Your task to perform on an android device: toggle notification dots Image 0: 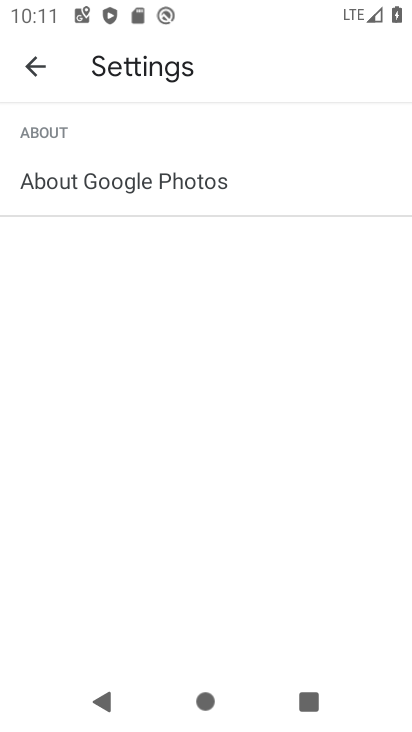
Step 0: press home button
Your task to perform on an android device: toggle notification dots Image 1: 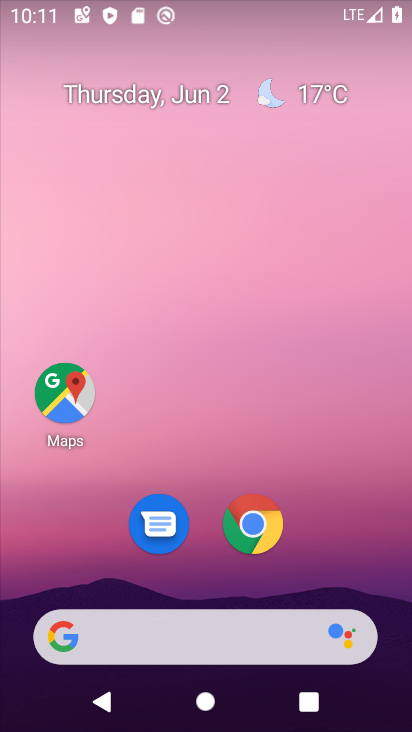
Step 1: drag from (238, 481) to (264, 0)
Your task to perform on an android device: toggle notification dots Image 2: 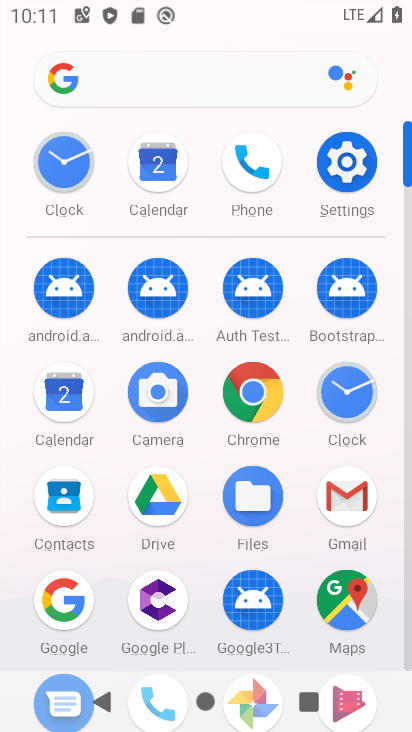
Step 2: click (346, 163)
Your task to perform on an android device: toggle notification dots Image 3: 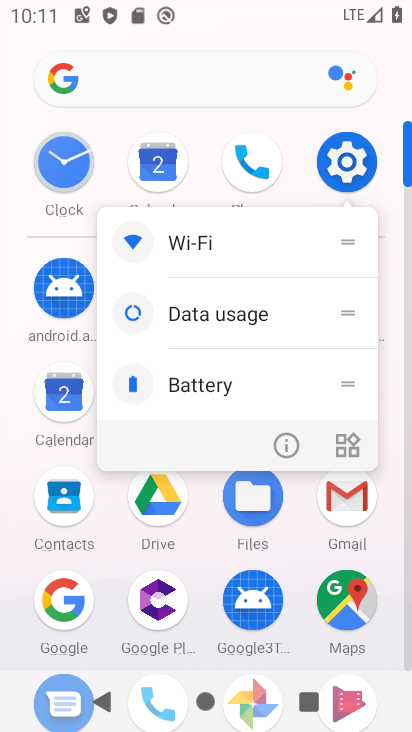
Step 3: click (350, 154)
Your task to perform on an android device: toggle notification dots Image 4: 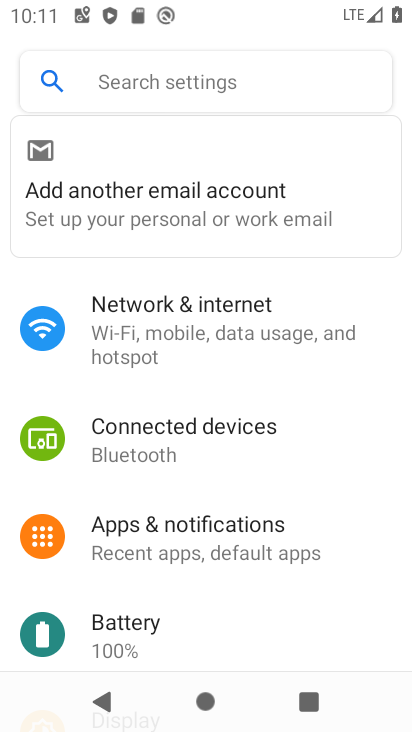
Step 4: click (262, 532)
Your task to perform on an android device: toggle notification dots Image 5: 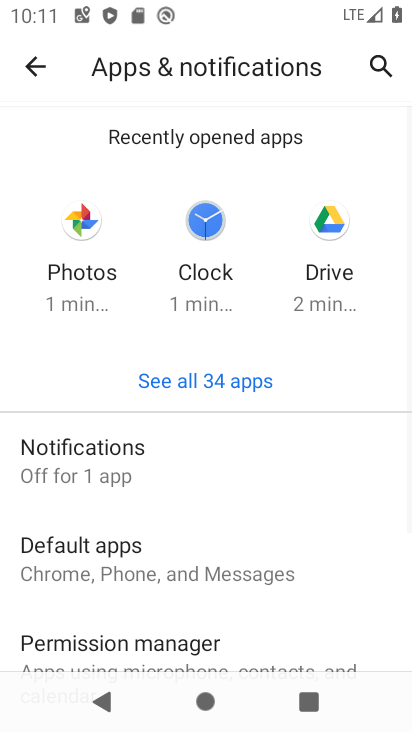
Step 5: click (204, 462)
Your task to perform on an android device: toggle notification dots Image 6: 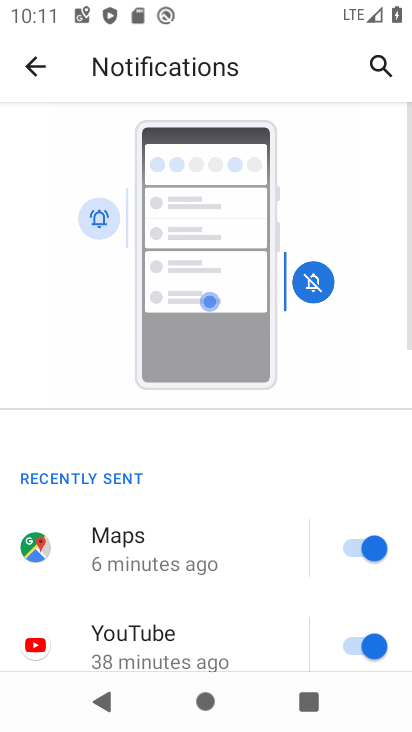
Step 6: drag from (243, 510) to (279, 23)
Your task to perform on an android device: toggle notification dots Image 7: 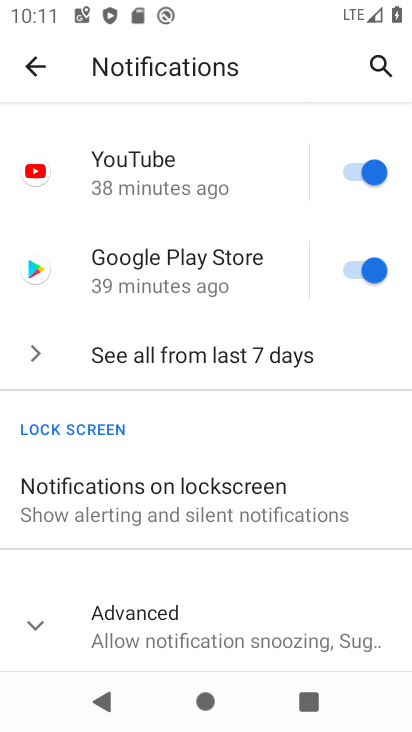
Step 7: drag from (242, 415) to (241, 139)
Your task to perform on an android device: toggle notification dots Image 8: 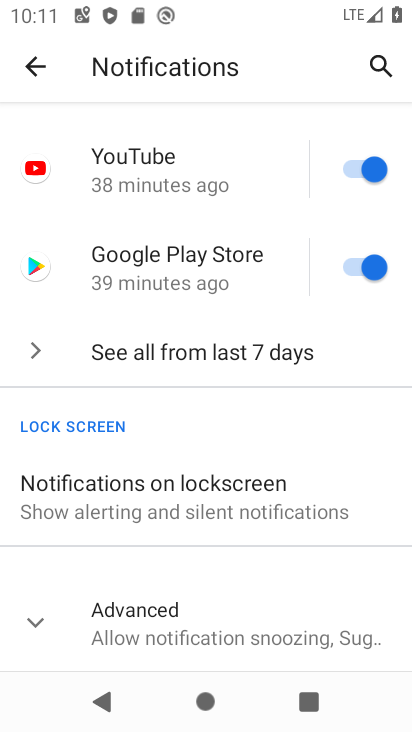
Step 8: click (36, 614)
Your task to perform on an android device: toggle notification dots Image 9: 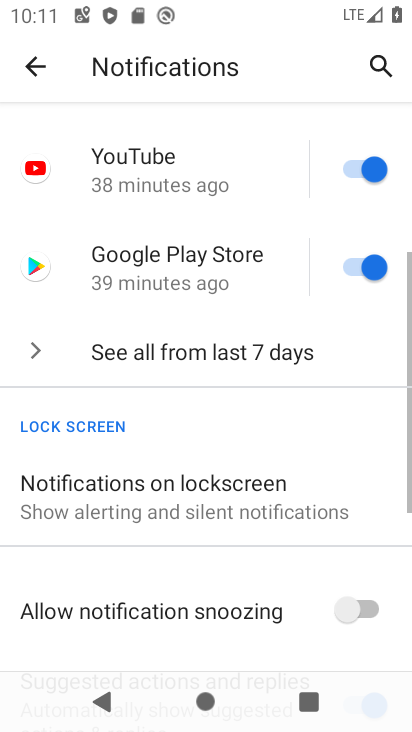
Step 9: drag from (217, 561) to (235, 167)
Your task to perform on an android device: toggle notification dots Image 10: 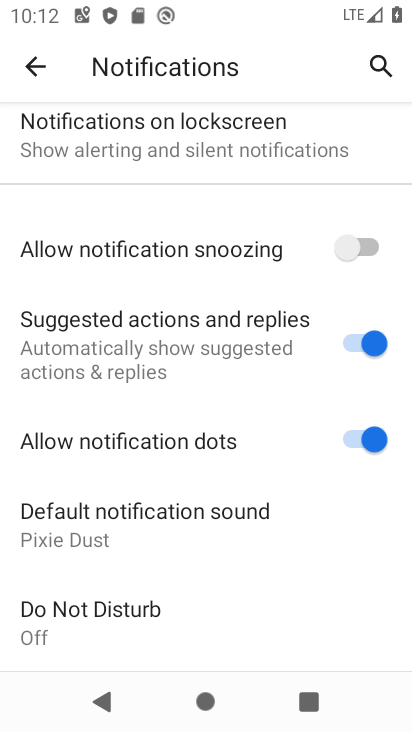
Step 10: click (361, 439)
Your task to perform on an android device: toggle notification dots Image 11: 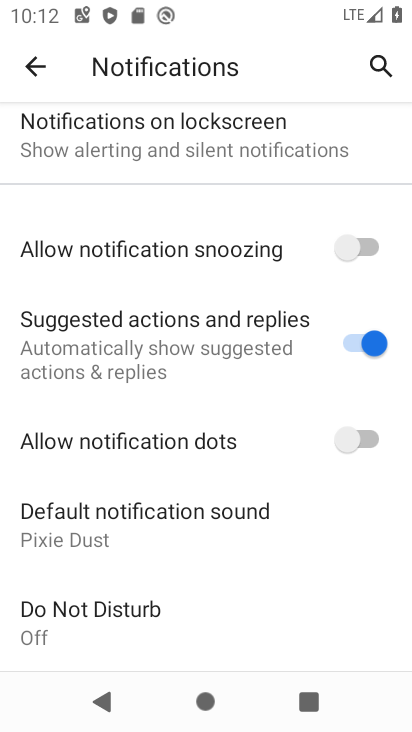
Step 11: task complete